Your task to perform on an android device: choose inbox layout in the gmail app Image 0: 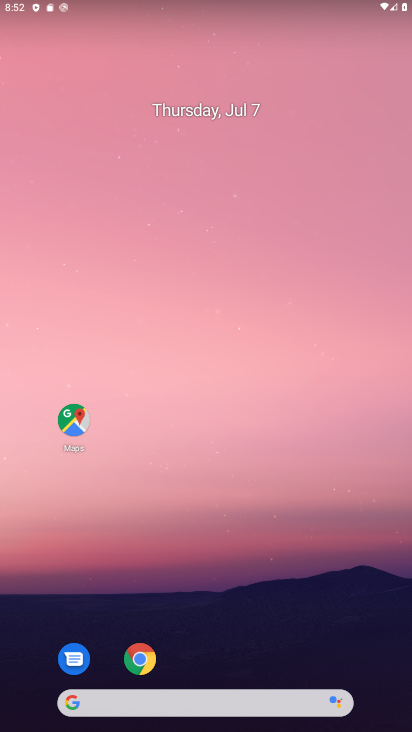
Step 0: drag from (214, 561) to (247, 0)
Your task to perform on an android device: choose inbox layout in the gmail app Image 1: 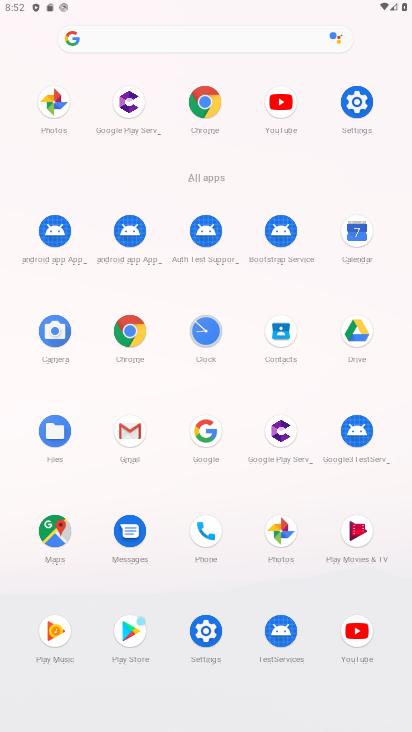
Step 1: click (127, 433)
Your task to perform on an android device: choose inbox layout in the gmail app Image 2: 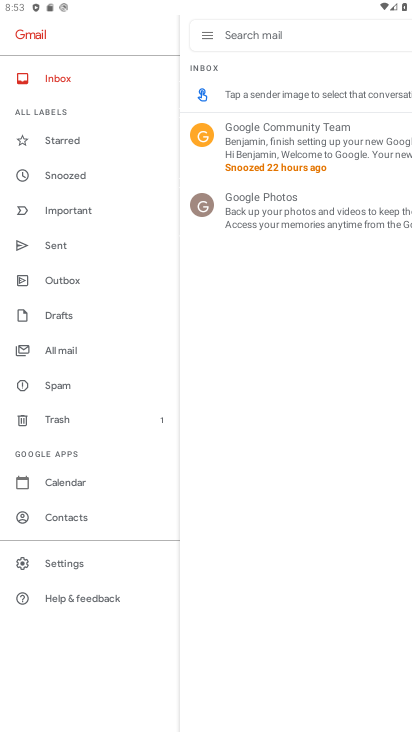
Step 2: click (75, 560)
Your task to perform on an android device: choose inbox layout in the gmail app Image 3: 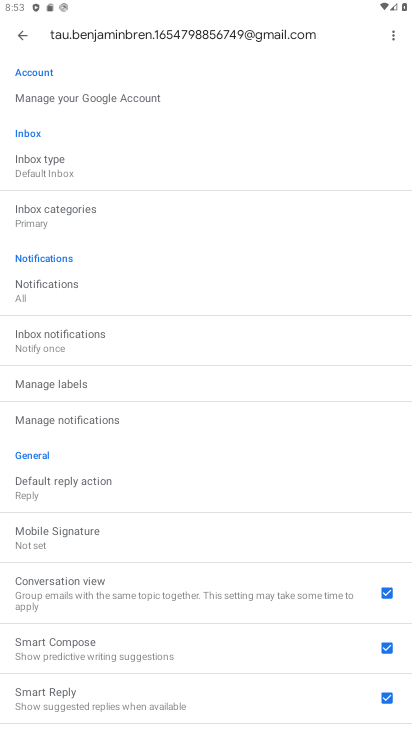
Step 3: click (85, 169)
Your task to perform on an android device: choose inbox layout in the gmail app Image 4: 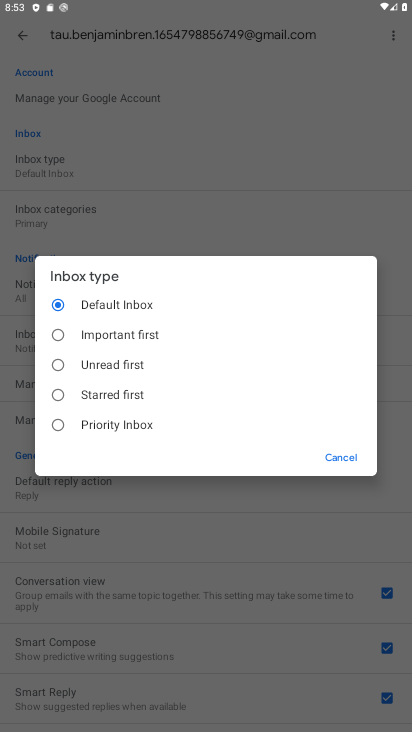
Step 4: click (75, 426)
Your task to perform on an android device: choose inbox layout in the gmail app Image 5: 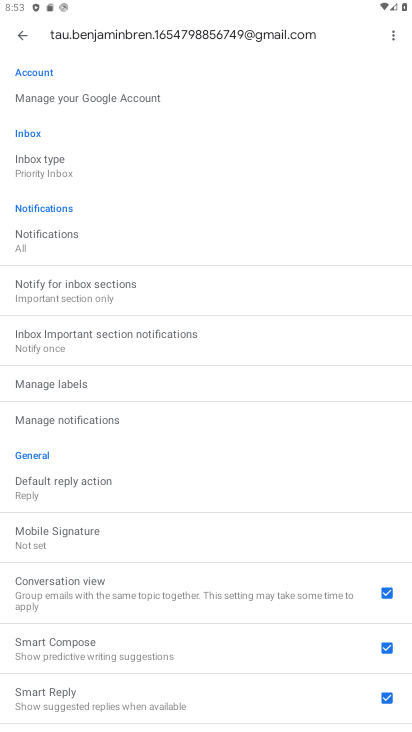
Step 5: task complete